Your task to perform on an android device: remove spam from my inbox in the gmail app Image 0: 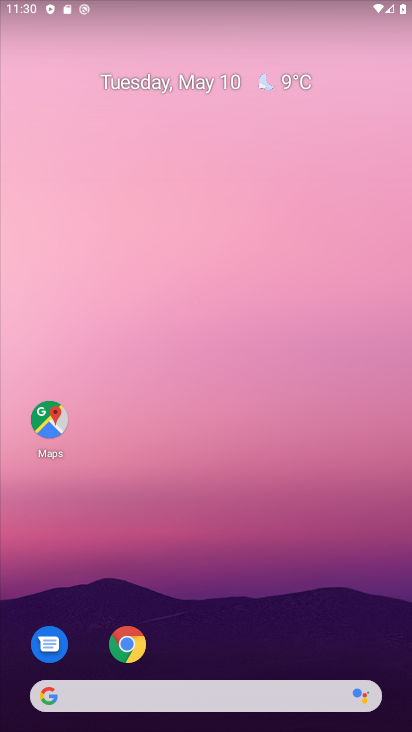
Step 0: click (293, 216)
Your task to perform on an android device: remove spam from my inbox in the gmail app Image 1: 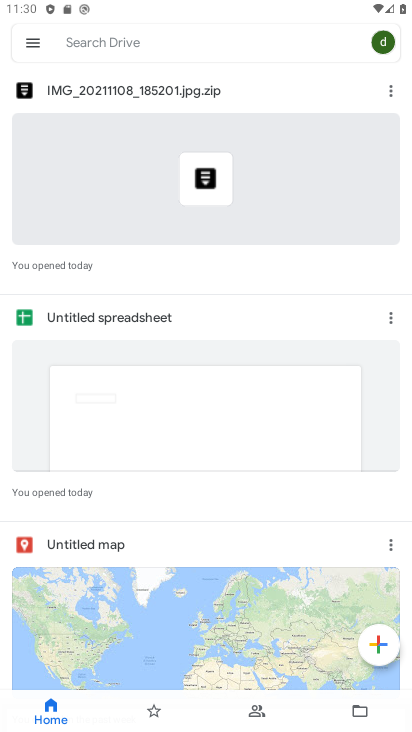
Step 1: press home button
Your task to perform on an android device: remove spam from my inbox in the gmail app Image 2: 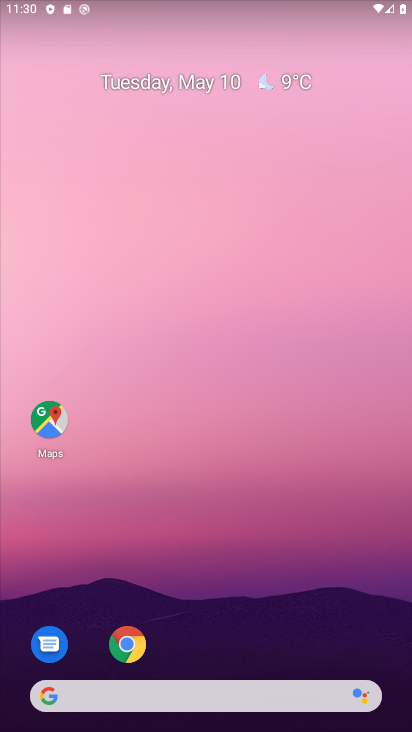
Step 2: drag from (220, 647) to (246, 149)
Your task to perform on an android device: remove spam from my inbox in the gmail app Image 3: 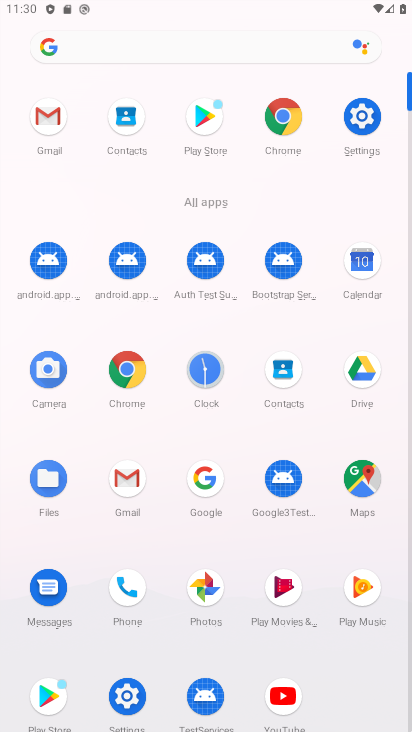
Step 3: click (131, 481)
Your task to perform on an android device: remove spam from my inbox in the gmail app Image 4: 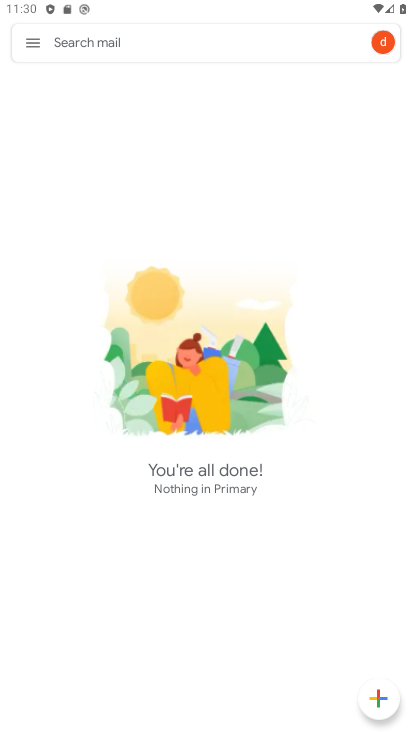
Step 4: click (22, 36)
Your task to perform on an android device: remove spam from my inbox in the gmail app Image 5: 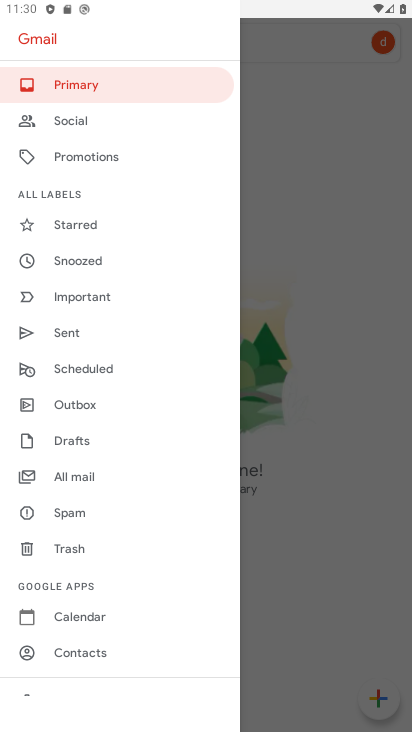
Step 5: click (85, 515)
Your task to perform on an android device: remove spam from my inbox in the gmail app Image 6: 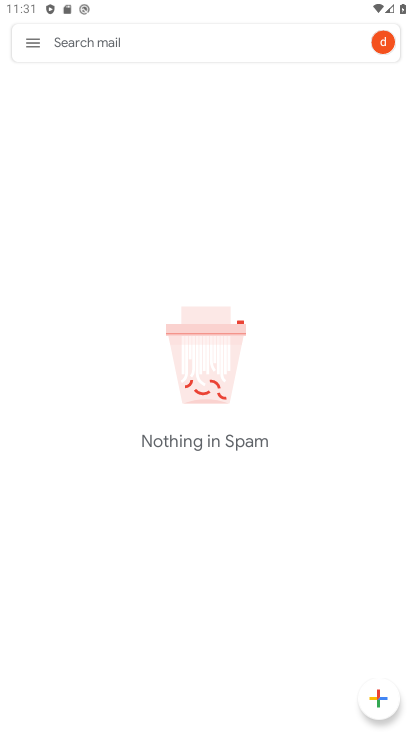
Step 6: task complete